Your task to perform on an android device: open a bookmark in the chrome app Image 0: 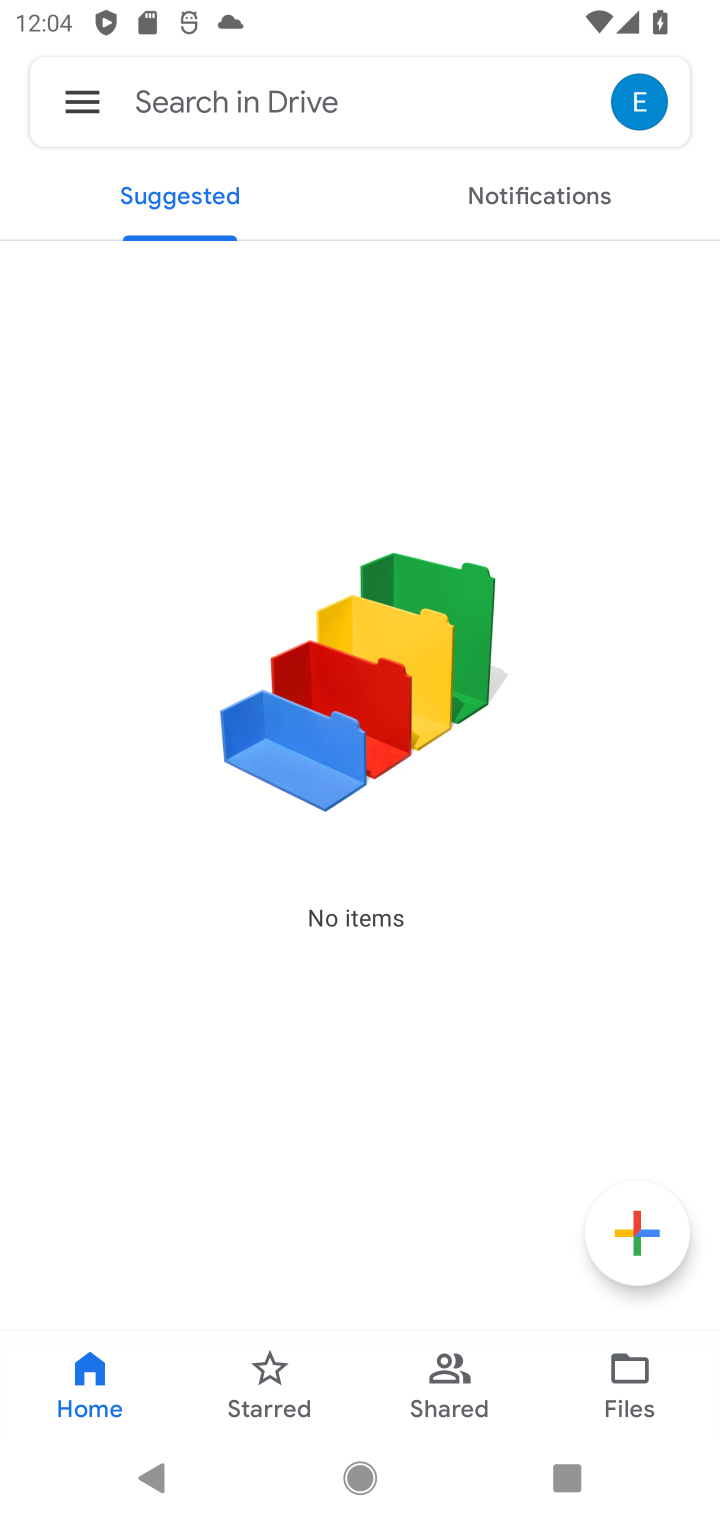
Step 0: press home button
Your task to perform on an android device: open a bookmark in the chrome app Image 1: 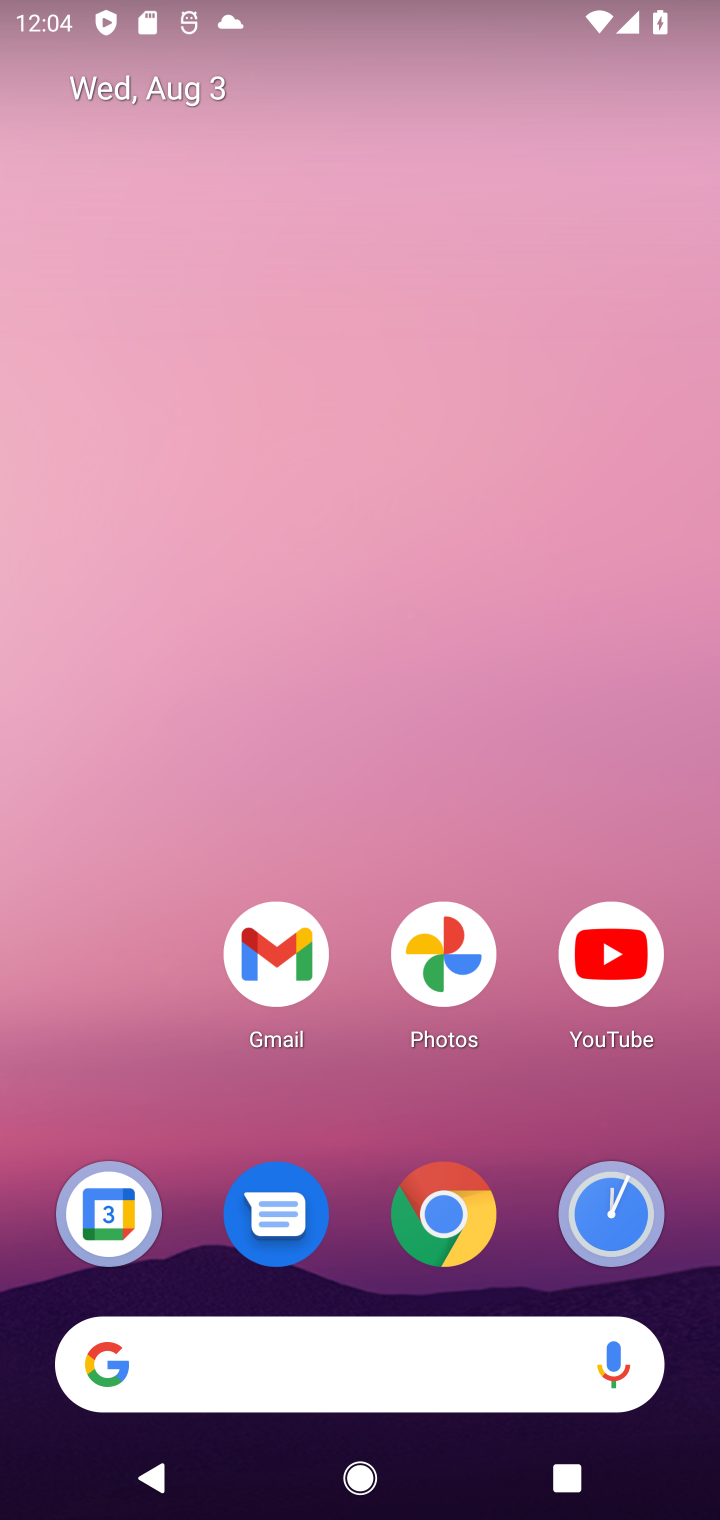
Step 1: click (484, 1189)
Your task to perform on an android device: open a bookmark in the chrome app Image 2: 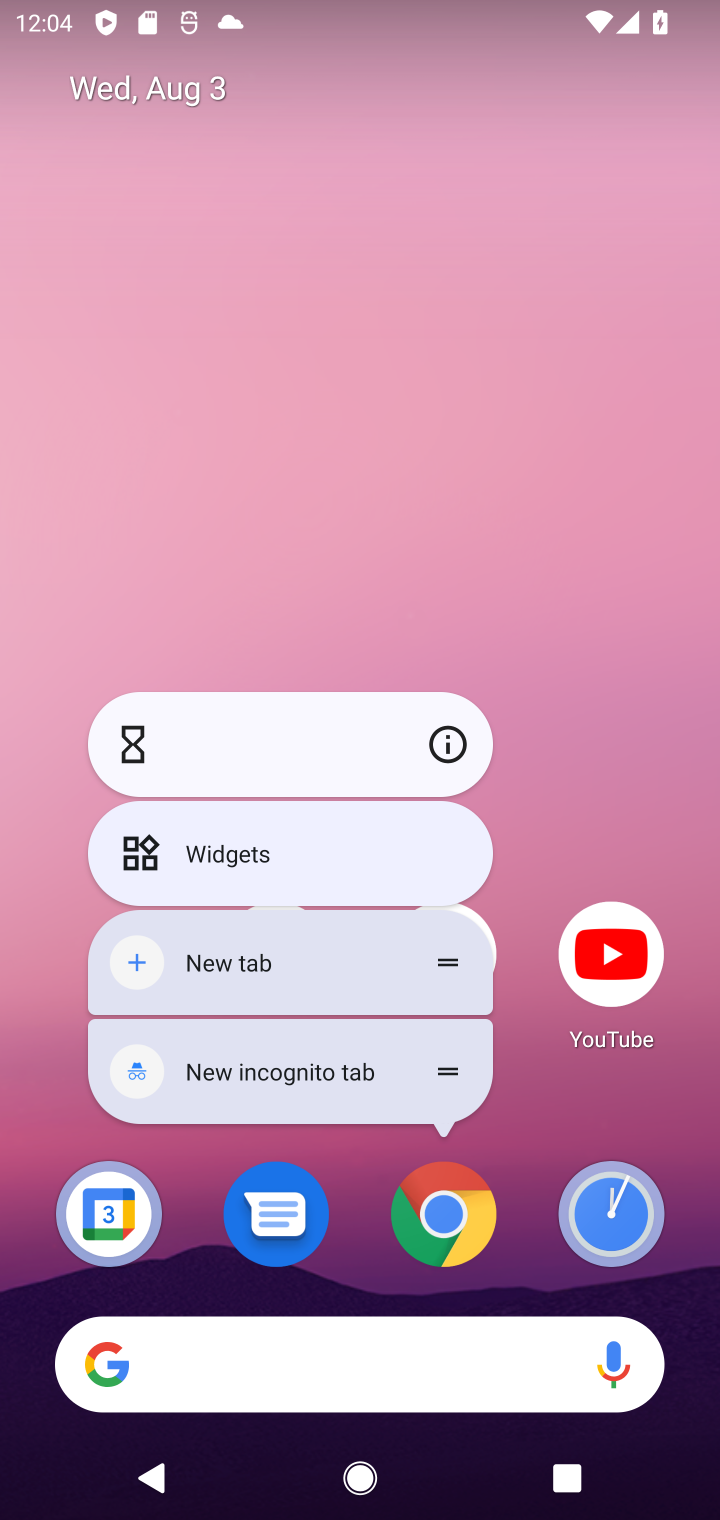
Step 2: click (484, 1189)
Your task to perform on an android device: open a bookmark in the chrome app Image 3: 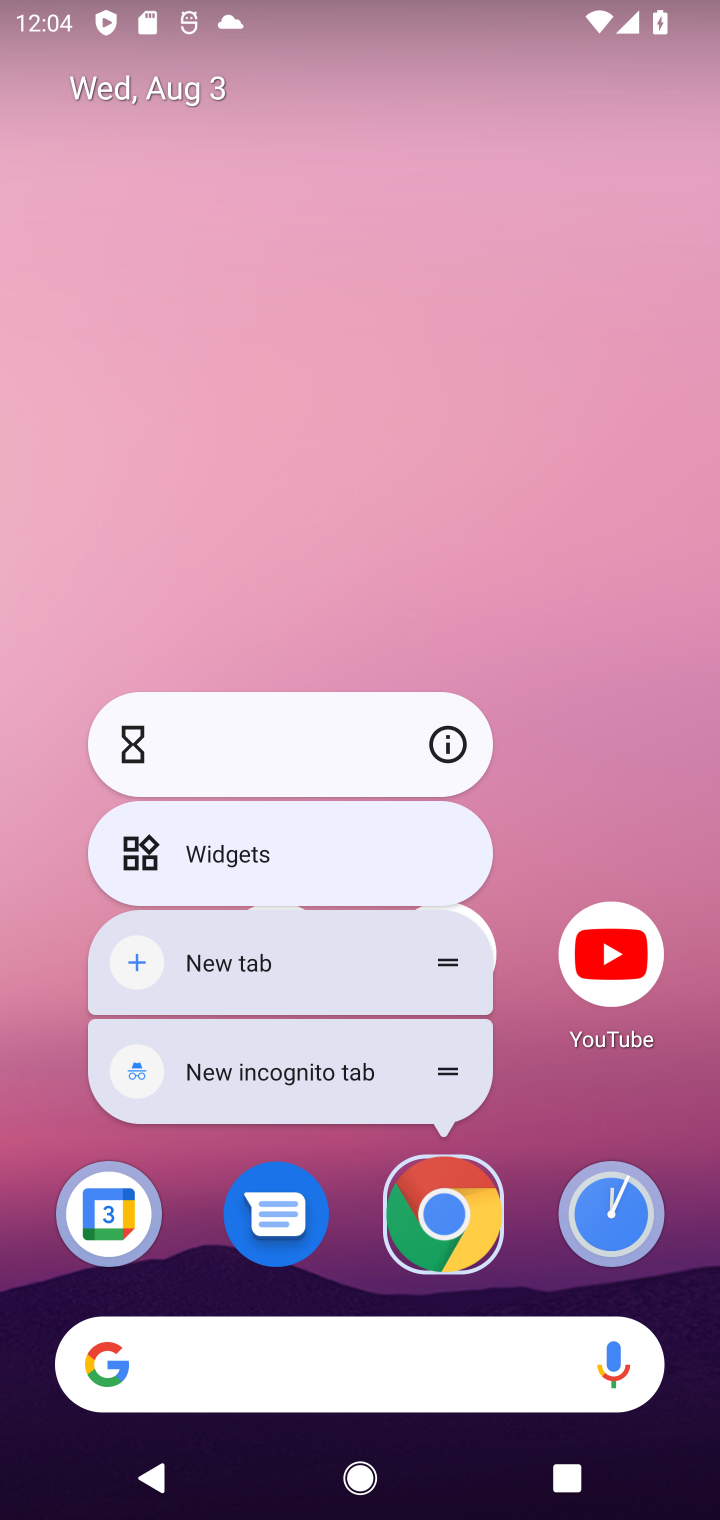
Step 3: click (412, 1269)
Your task to perform on an android device: open a bookmark in the chrome app Image 4: 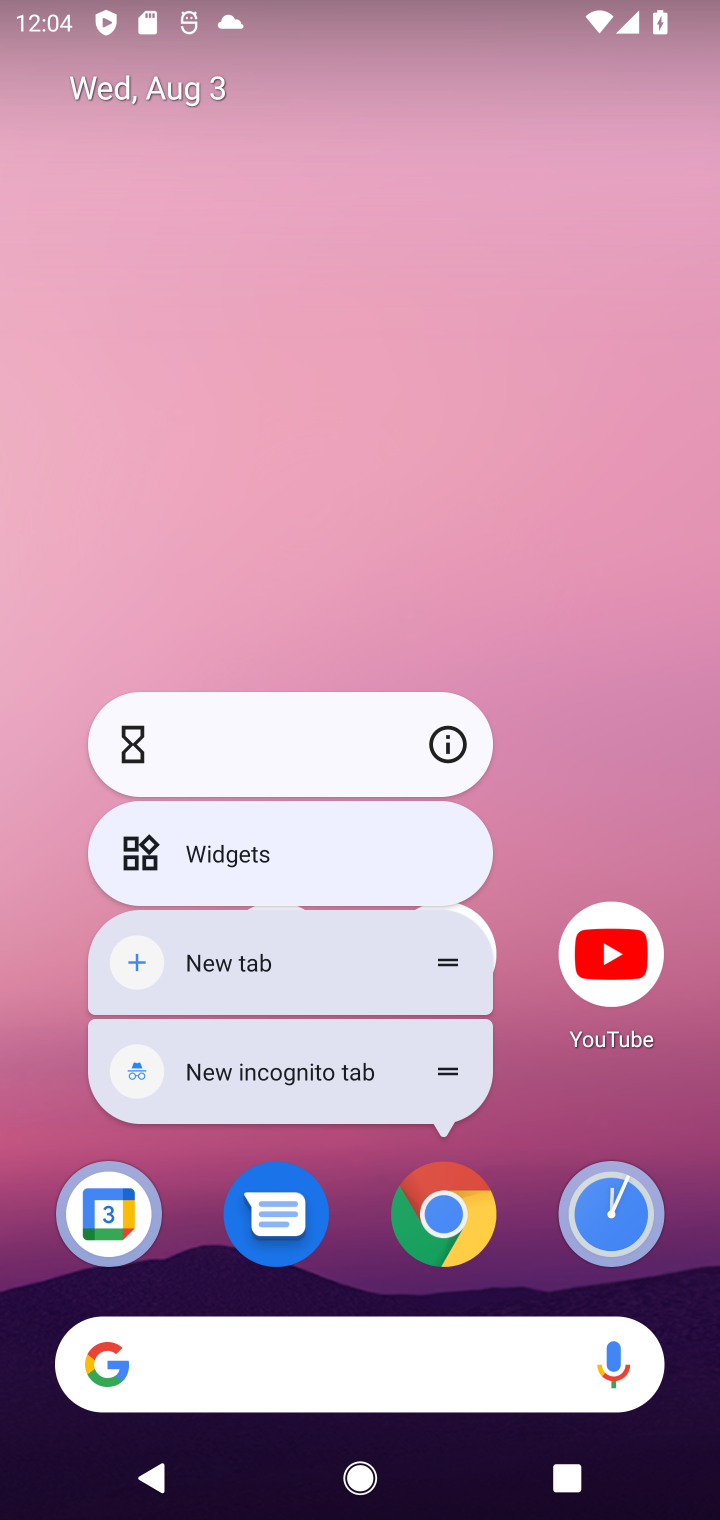
Step 4: click (486, 1197)
Your task to perform on an android device: open a bookmark in the chrome app Image 5: 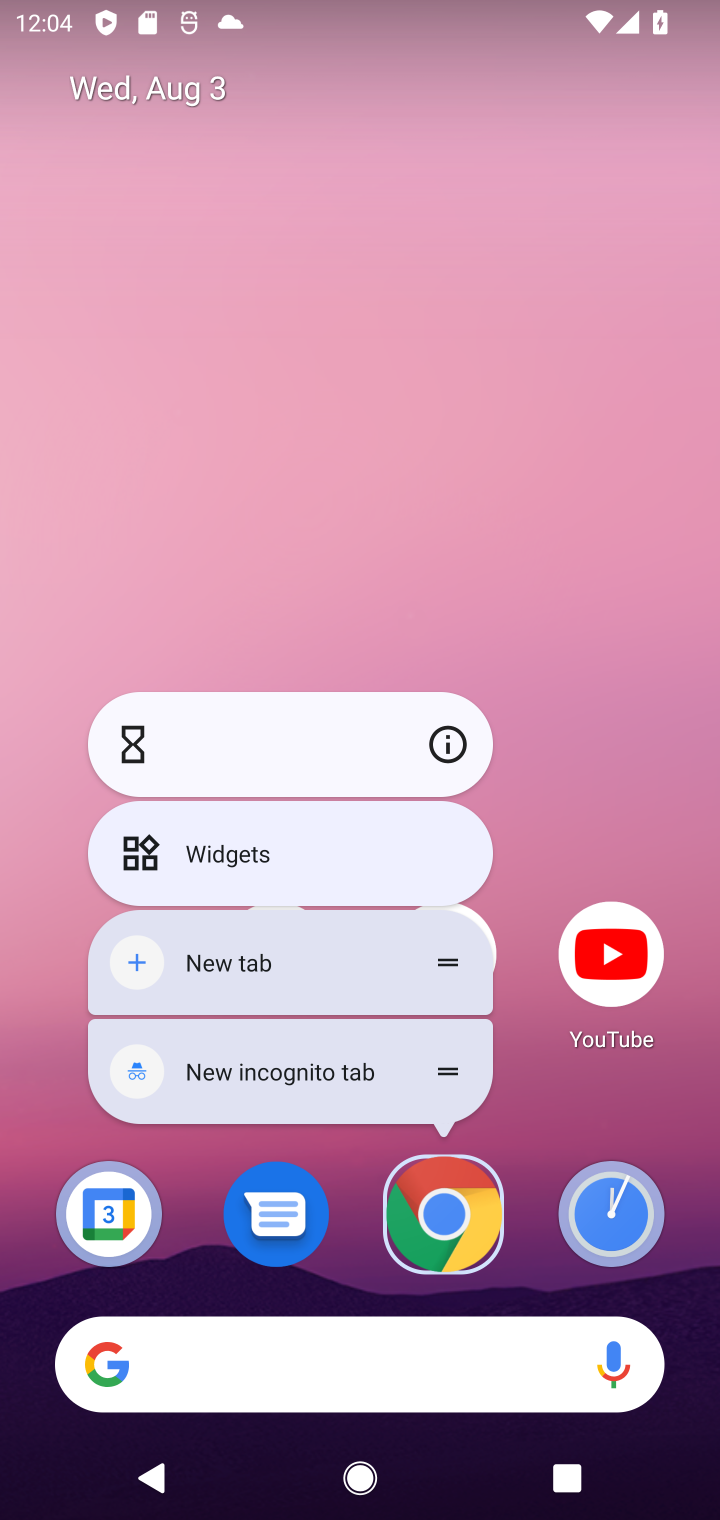
Step 5: click (397, 1236)
Your task to perform on an android device: open a bookmark in the chrome app Image 6: 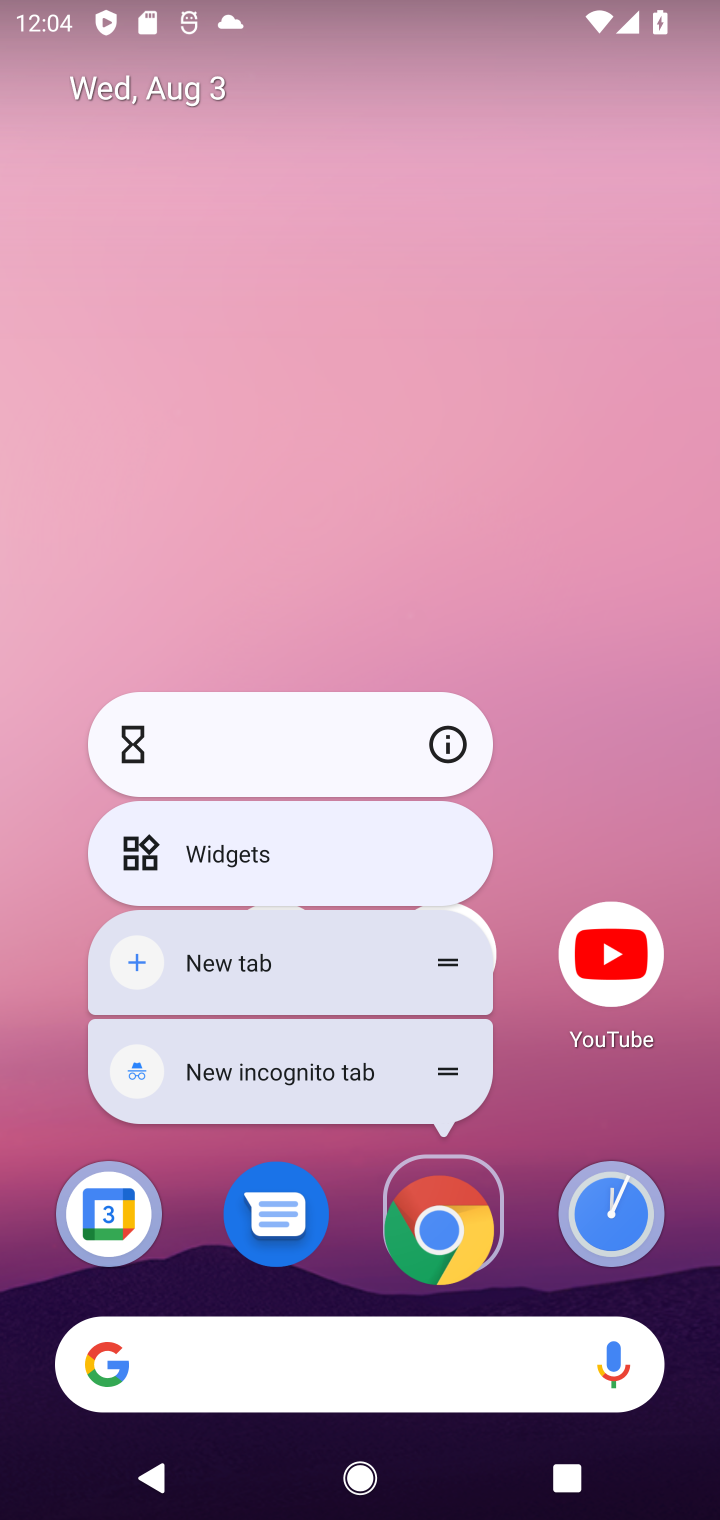
Step 6: click (447, 1214)
Your task to perform on an android device: open a bookmark in the chrome app Image 7: 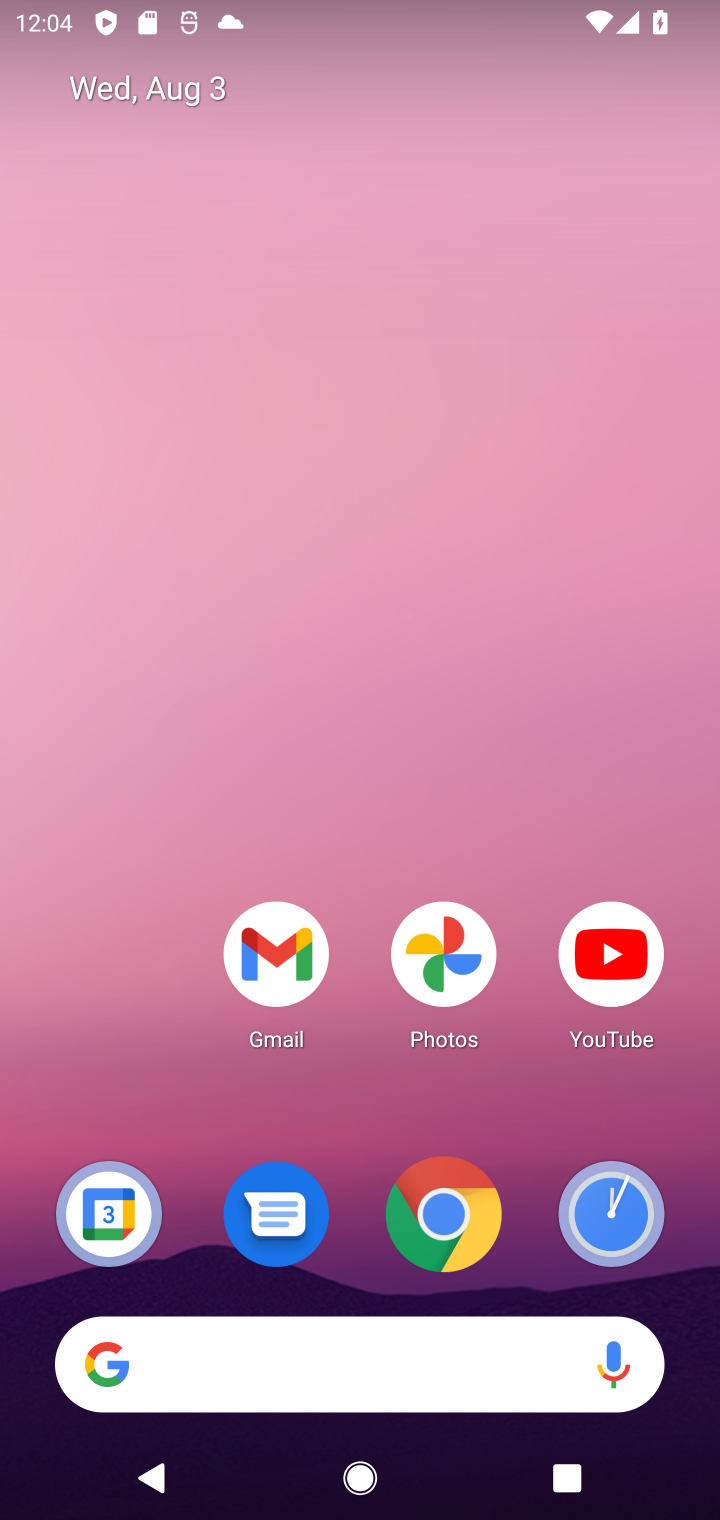
Step 7: click (397, 1193)
Your task to perform on an android device: open a bookmark in the chrome app Image 8: 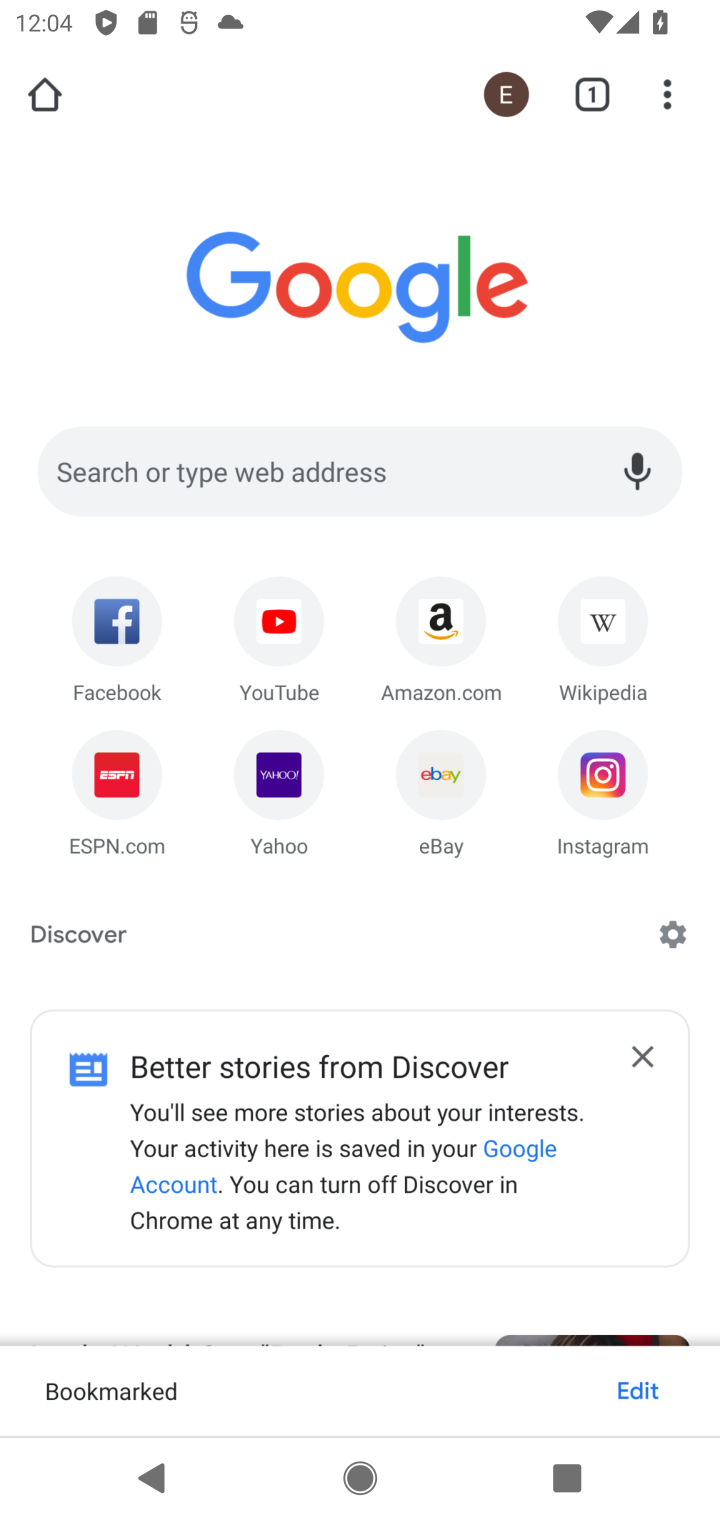
Step 8: click (470, 1245)
Your task to perform on an android device: open a bookmark in the chrome app Image 9: 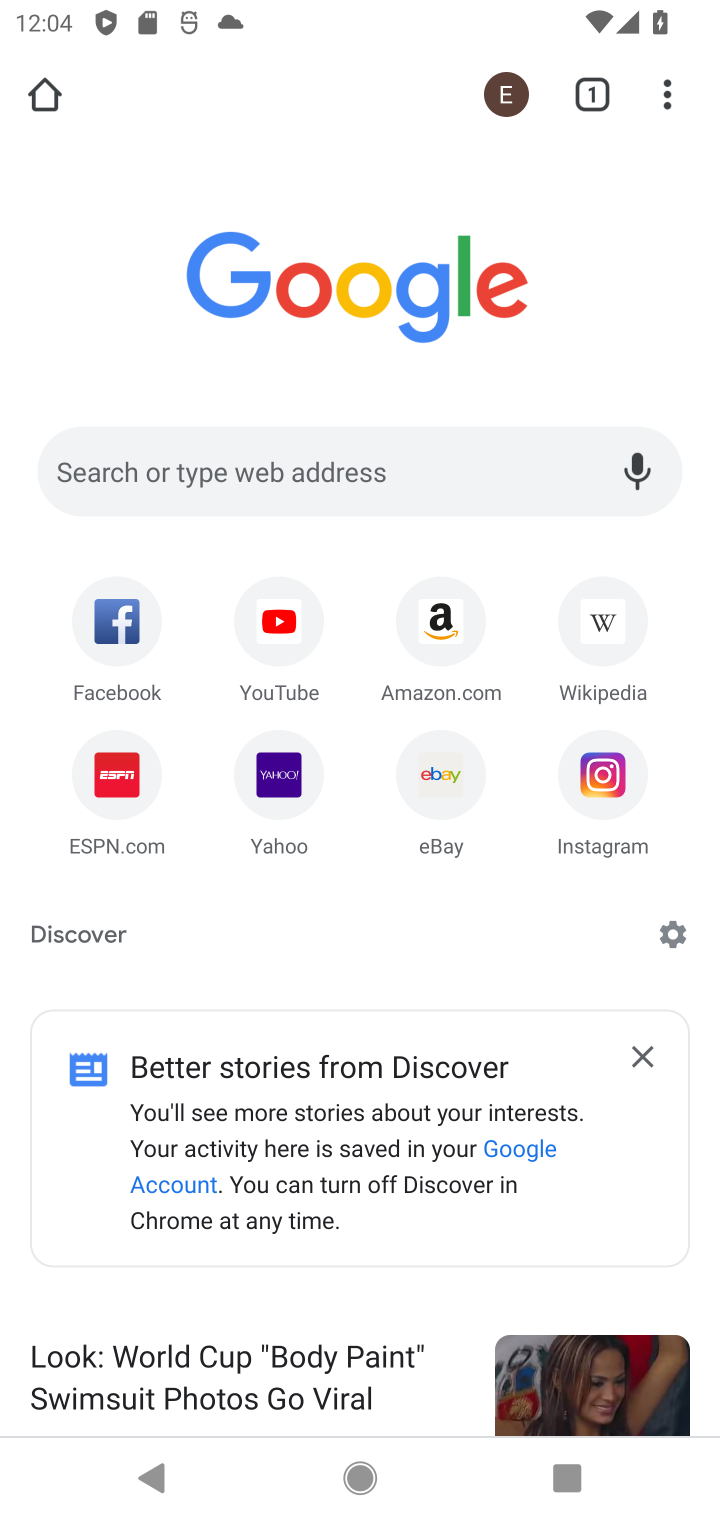
Step 9: click (652, 80)
Your task to perform on an android device: open a bookmark in the chrome app Image 10: 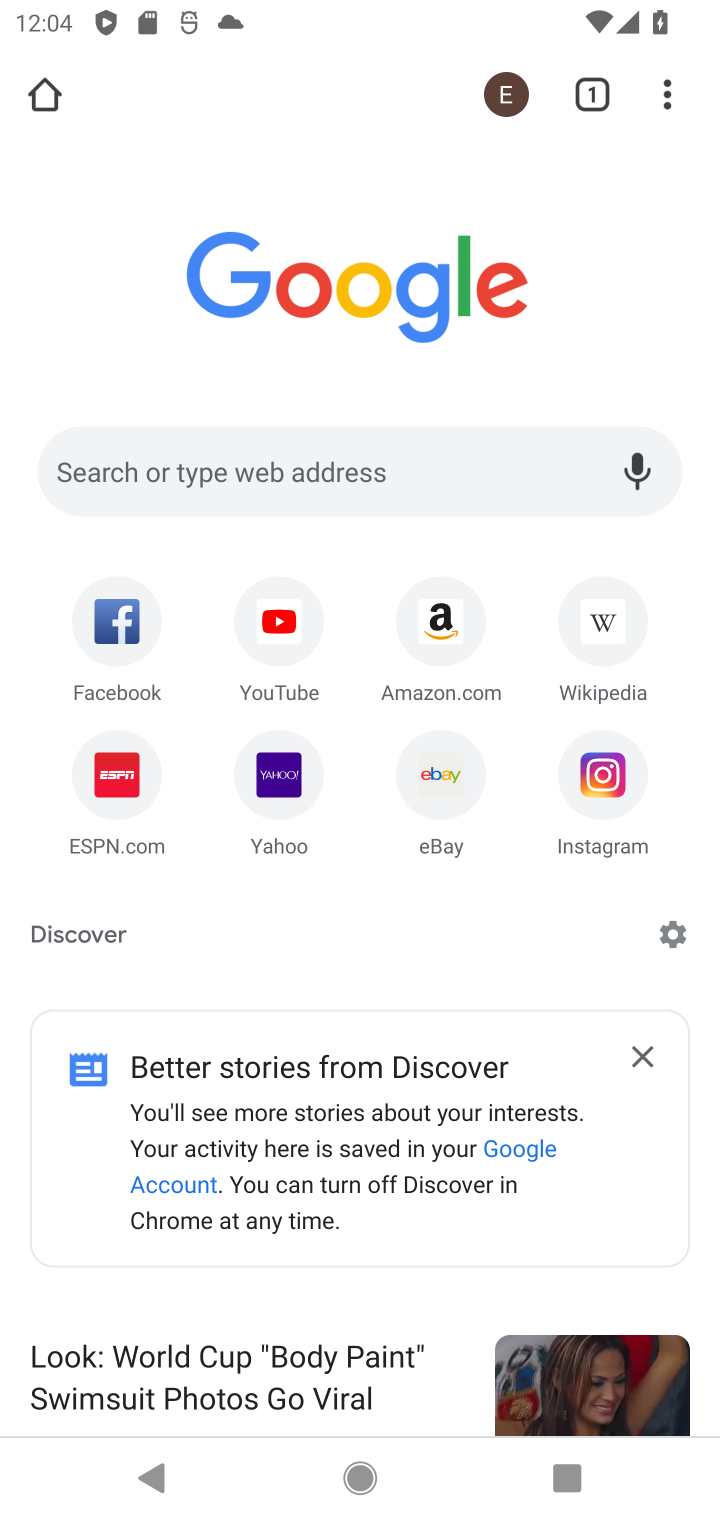
Step 10: click (668, 98)
Your task to perform on an android device: open a bookmark in the chrome app Image 11: 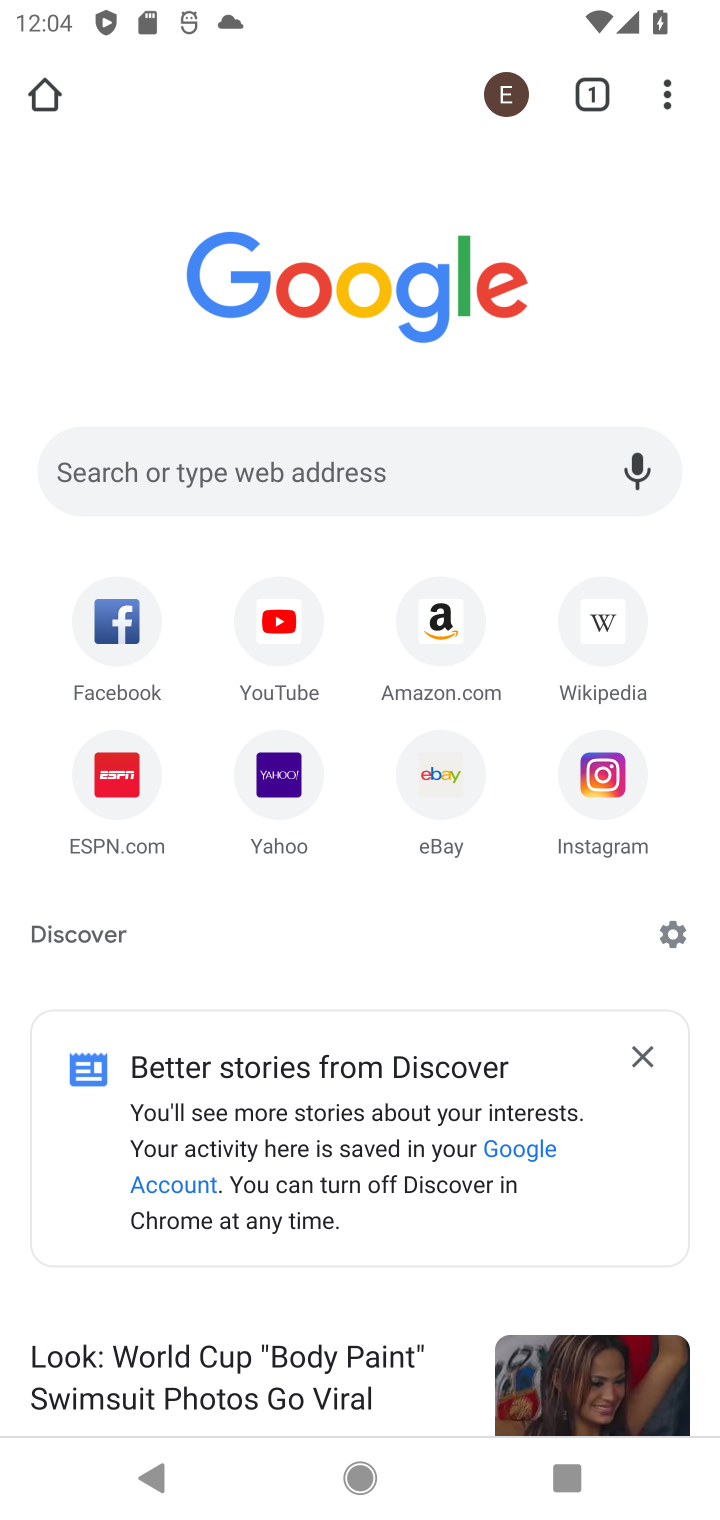
Step 11: click (668, 98)
Your task to perform on an android device: open a bookmark in the chrome app Image 12: 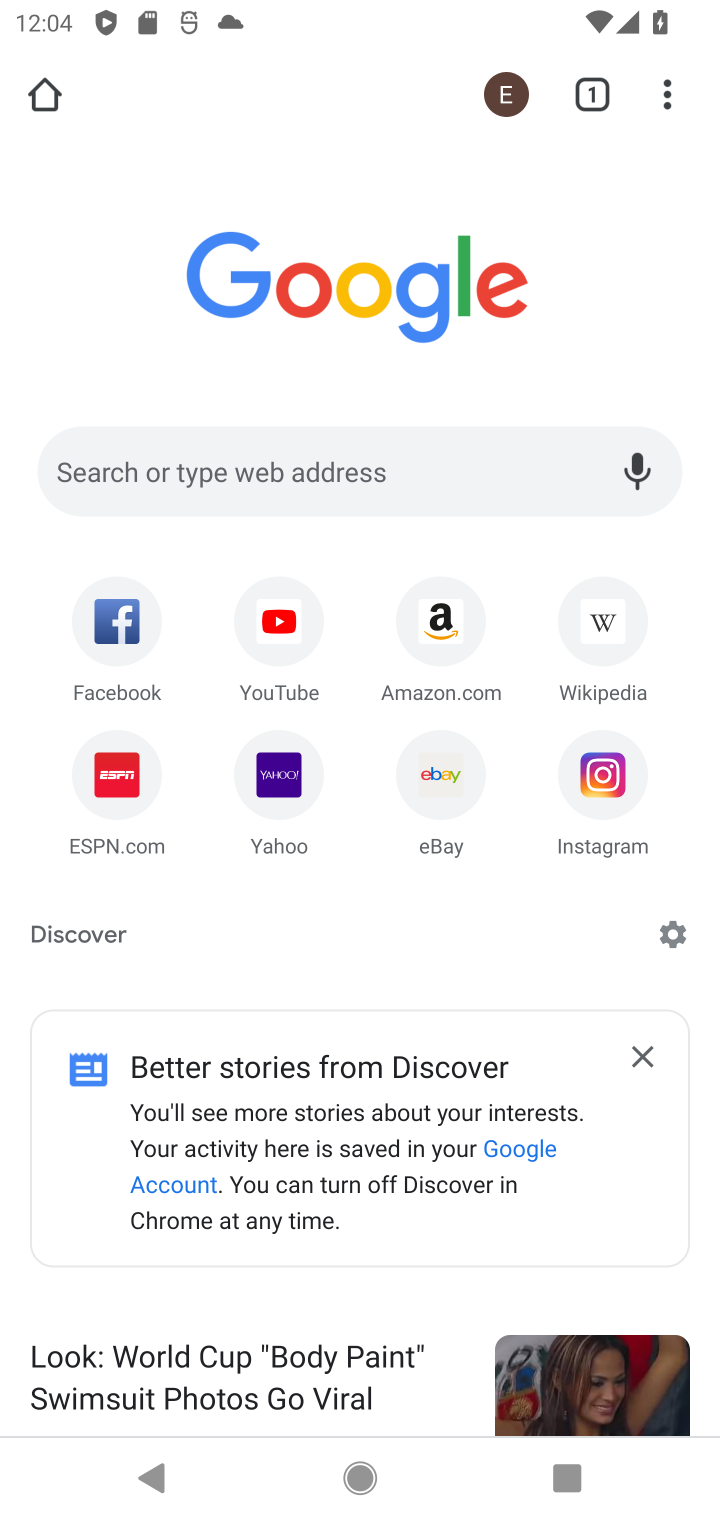
Step 12: click (666, 117)
Your task to perform on an android device: open a bookmark in the chrome app Image 13: 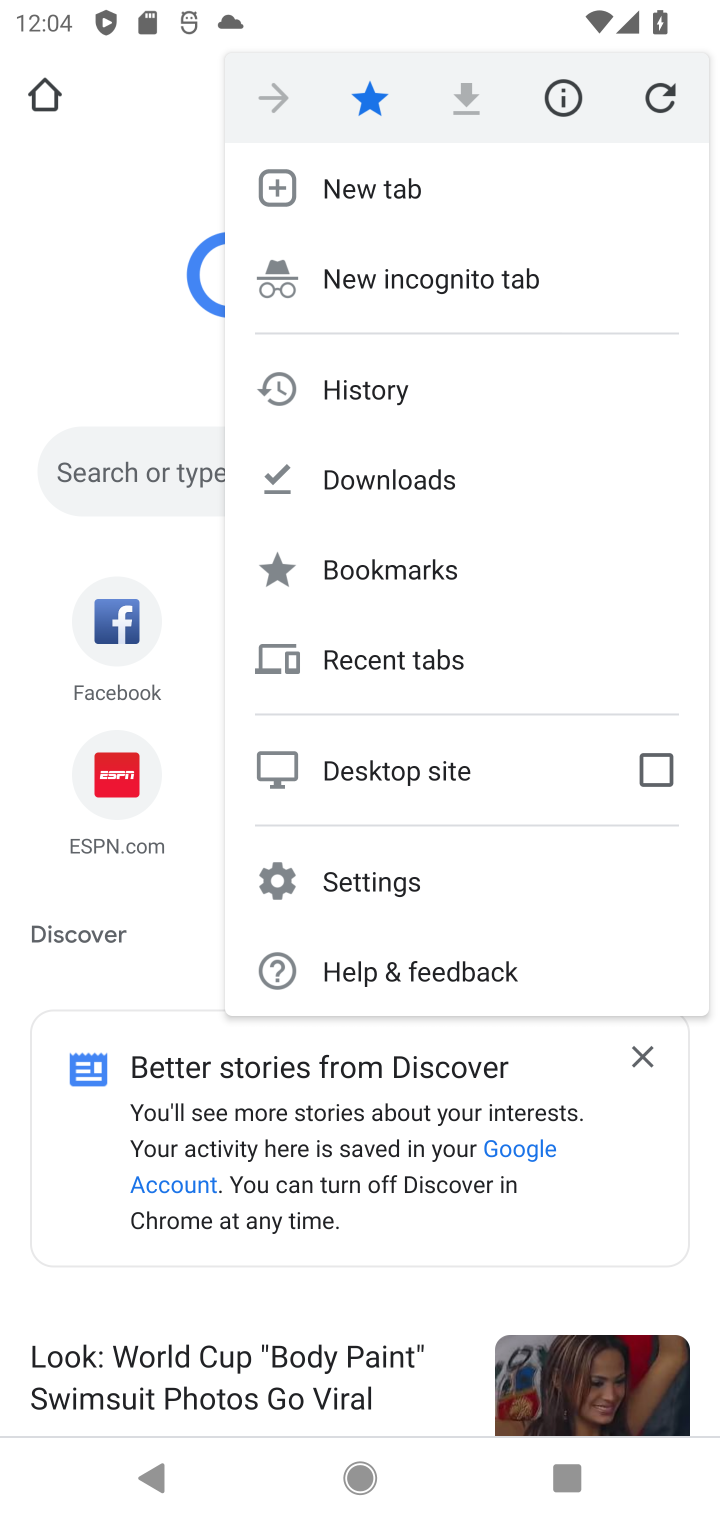
Step 13: click (360, 576)
Your task to perform on an android device: open a bookmark in the chrome app Image 14: 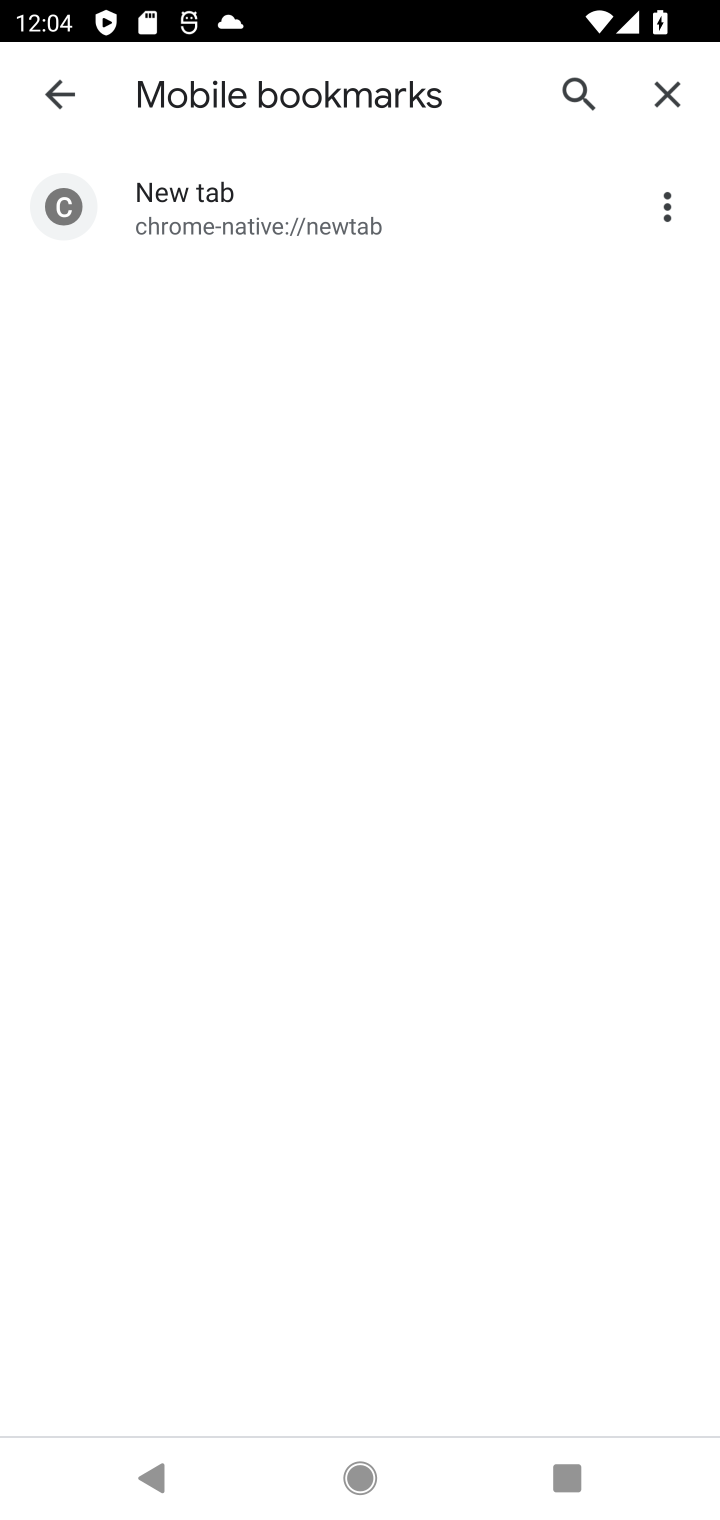
Step 14: task complete